Your task to perform on an android device: Go to CNN.com Image 0: 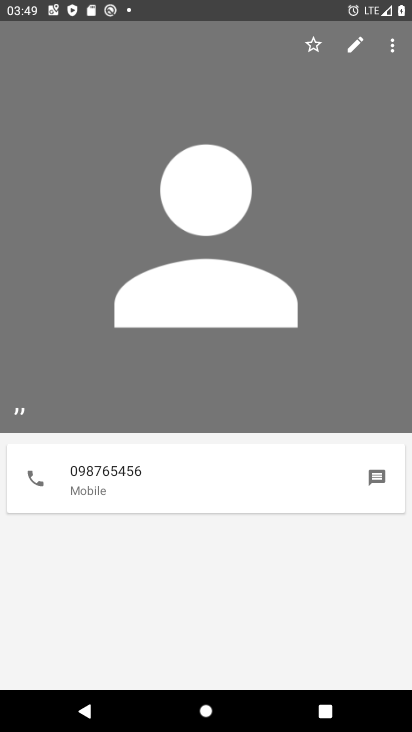
Step 0: press home button
Your task to perform on an android device: Go to CNN.com Image 1: 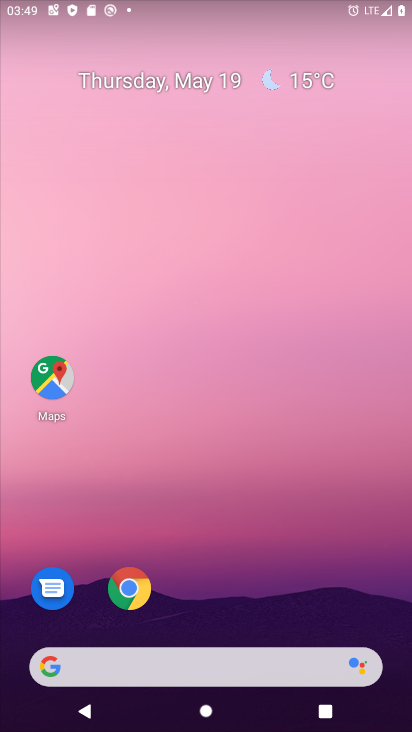
Step 1: drag from (258, 600) to (331, 133)
Your task to perform on an android device: Go to CNN.com Image 2: 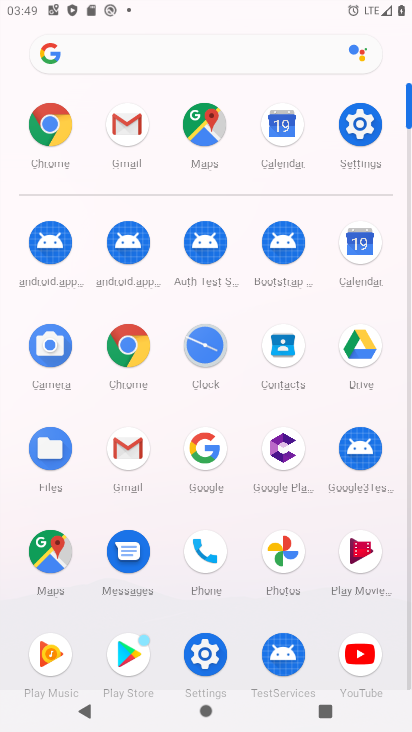
Step 2: click (129, 338)
Your task to perform on an android device: Go to CNN.com Image 3: 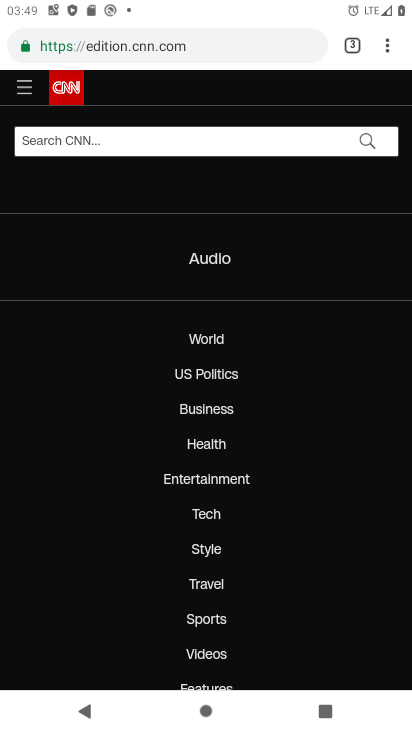
Step 3: task complete